Your task to perform on an android device: change the clock display to digital Image 0: 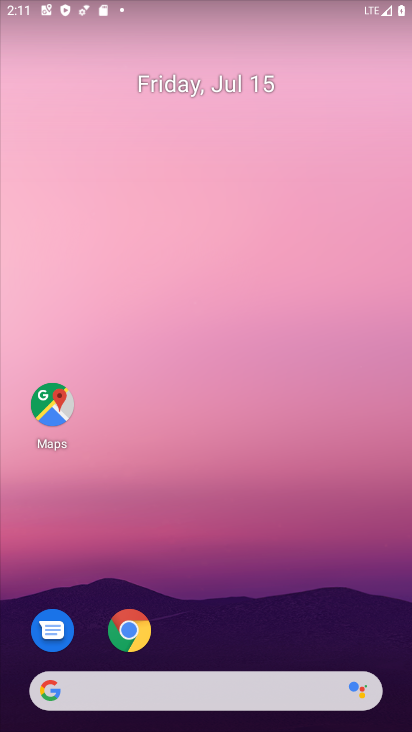
Step 0: press home button
Your task to perform on an android device: change the clock display to digital Image 1: 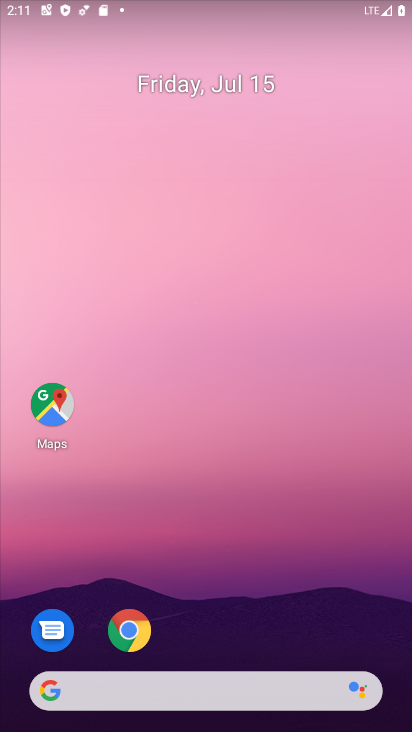
Step 1: click (362, 725)
Your task to perform on an android device: change the clock display to digital Image 2: 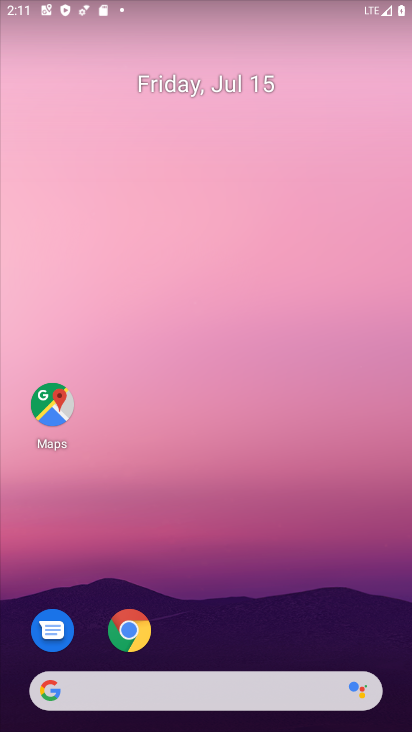
Step 2: drag from (209, 594) to (169, 33)
Your task to perform on an android device: change the clock display to digital Image 3: 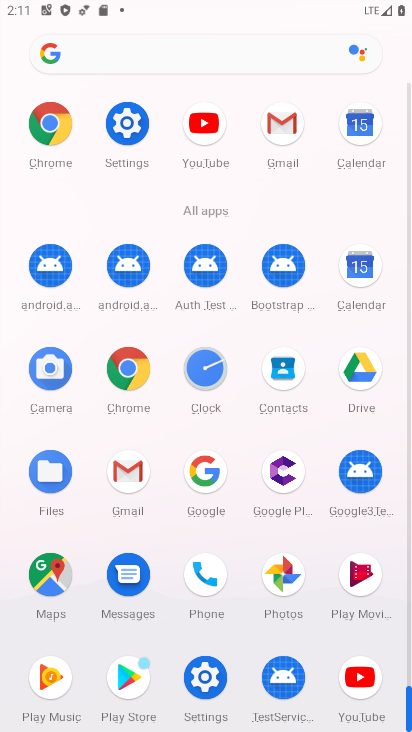
Step 3: click (209, 369)
Your task to perform on an android device: change the clock display to digital Image 4: 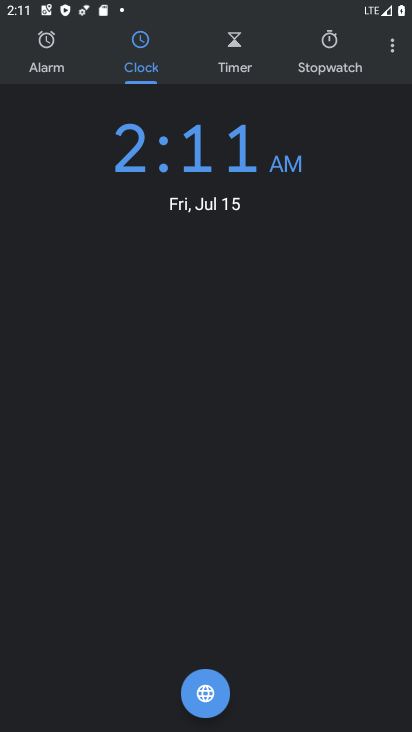
Step 4: click (395, 46)
Your task to perform on an android device: change the clock display to digital Image 5: 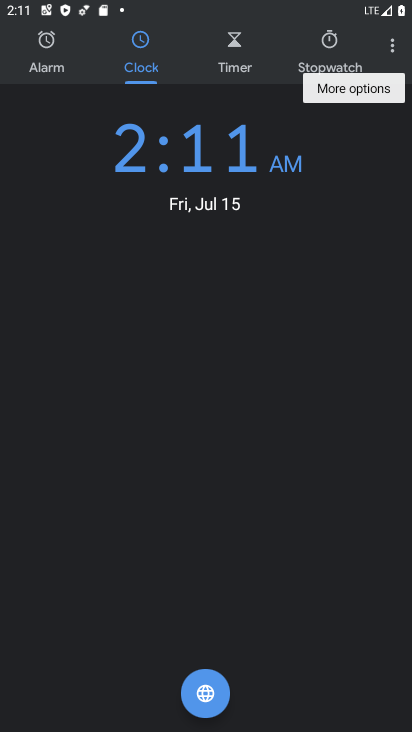
Step 5: click (395, 46)
Your task to perform on an android device: change the clock display to digital Image 6: 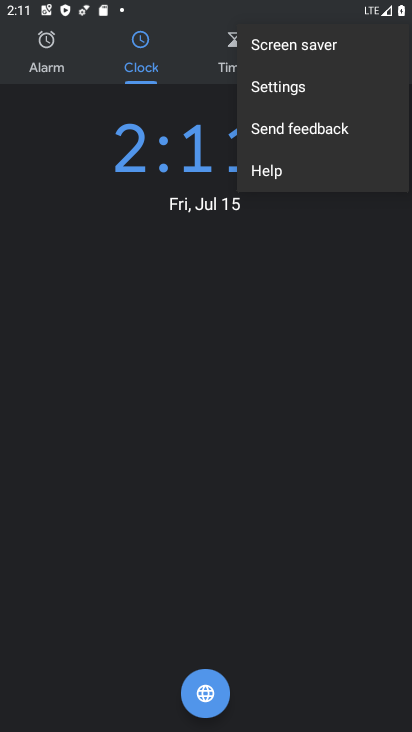
Step 6: click (276, 81)
Your task to perform on an android device: change the clock display to digital Image 7: 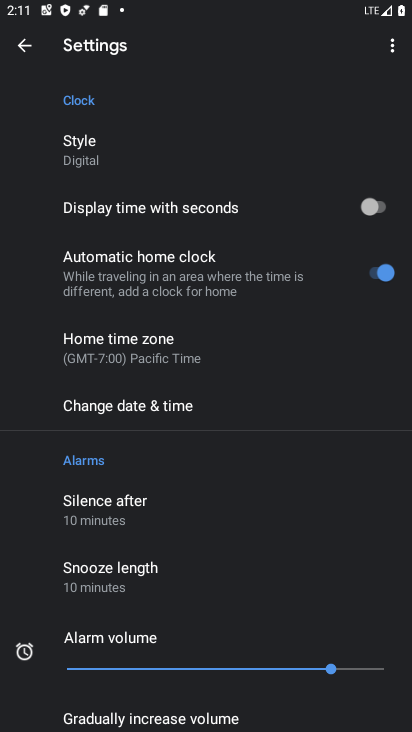
Step 7: task complete